Your task to perform on an android device: Open Wikipedia Image 0: 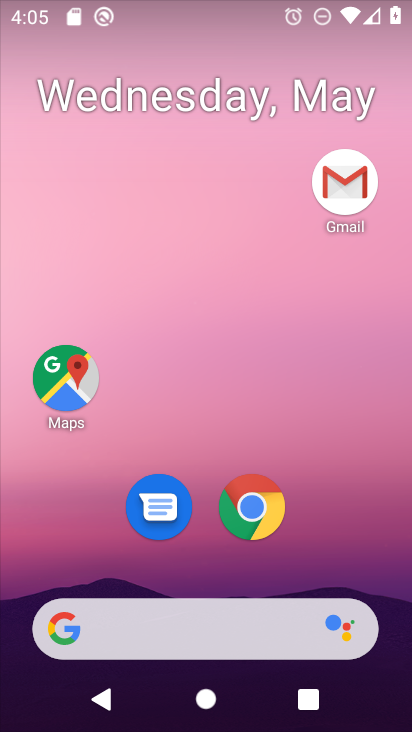
Step 0: drag from (303, 555) to (299, 427)
Your task to perform on an android device: Open Wikipedia Image 1: 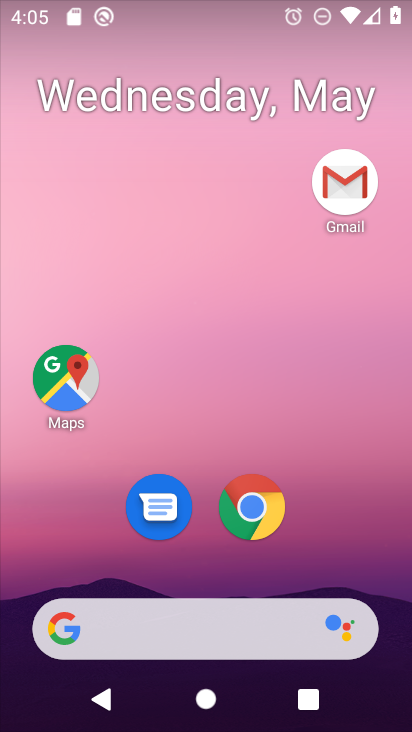
Step 1: drag from (288, 552) to (254, 343)
Your task to perform on an android device: Open Wikipedia Image 2: 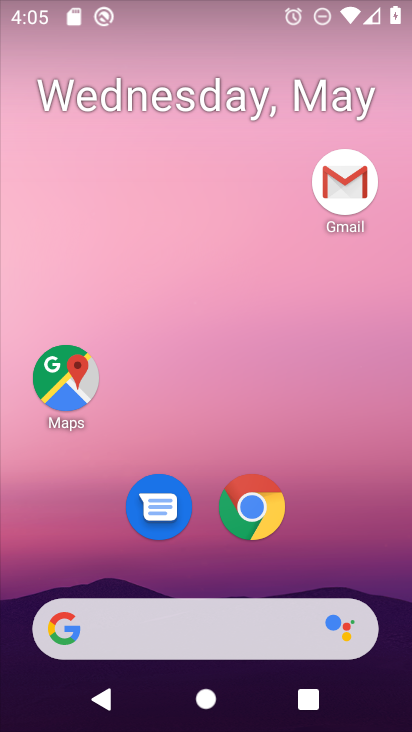
Step 2: drag from (296, 564) to (323, 106)
Your task to perform on an android device: Open Wikipedia Image 3: 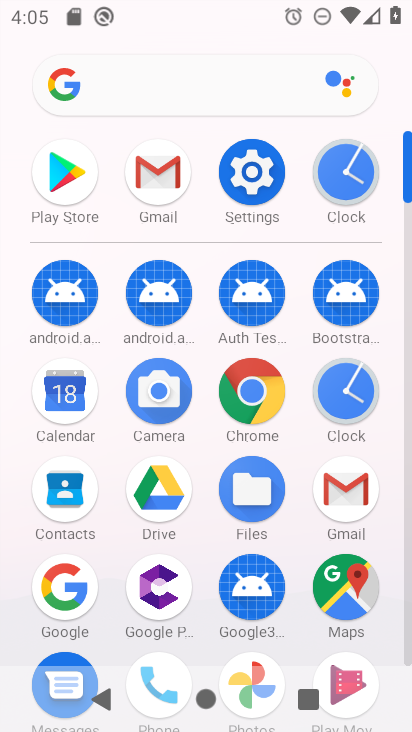
Step 3: click (259, 382)
Your task to perform on an android device: Open Wikipedia Image 4: 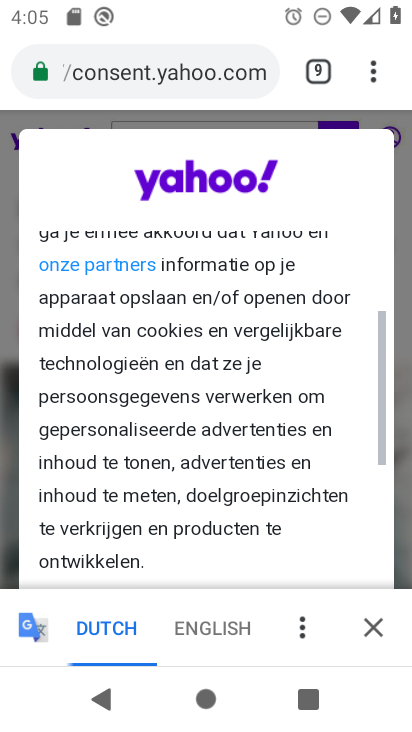
Step 4: click (319, 67)
Your task to perform on an android device: Open Wikipedia Image 5: 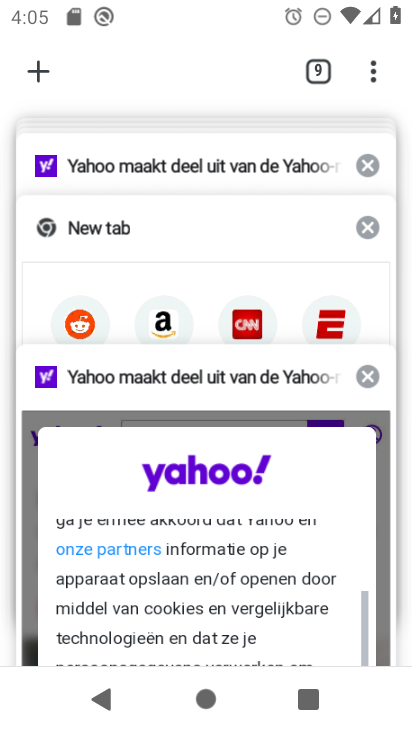
Step 5: drag from (249, 193) to (251, 454)
Your task to perform on an android device: Open Wikipedia Image 6: 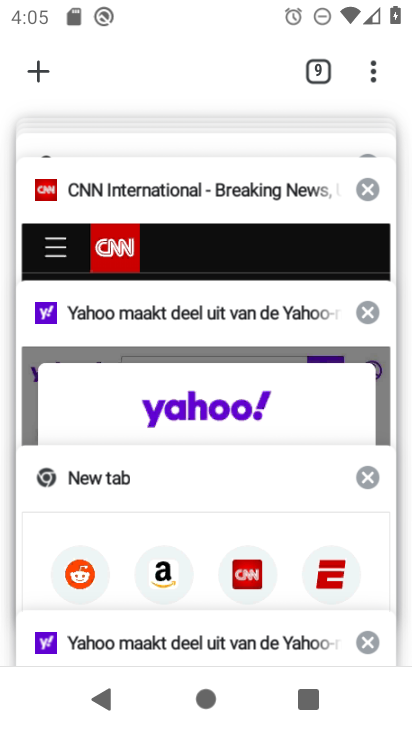
Step 6: drag from (253, 215) to (281, 429)
Your task to perform on an android device: Open Wikipedia Image 7: 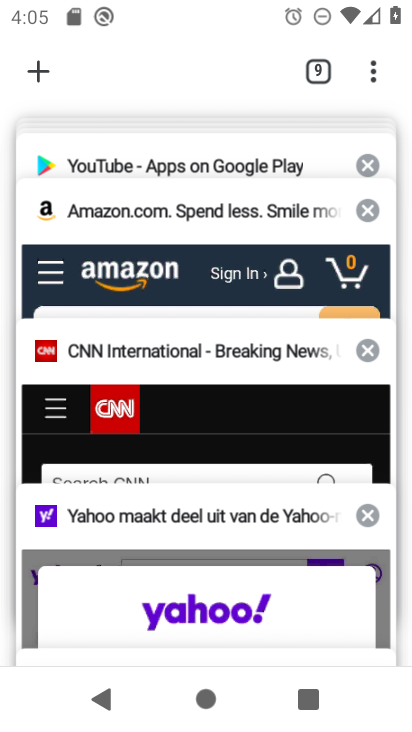
Step 7: drag from (255, 217) to (284, 503)
Your task to perform on an android device: Open Wikipedia Image 8: 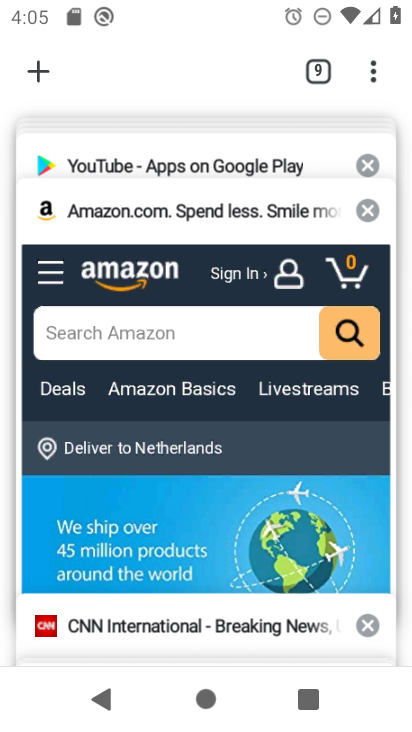
Step 8: drag from (258, 176) to (274, 390)
Your task to perform on an android device: Open Wikipedia Image 9: 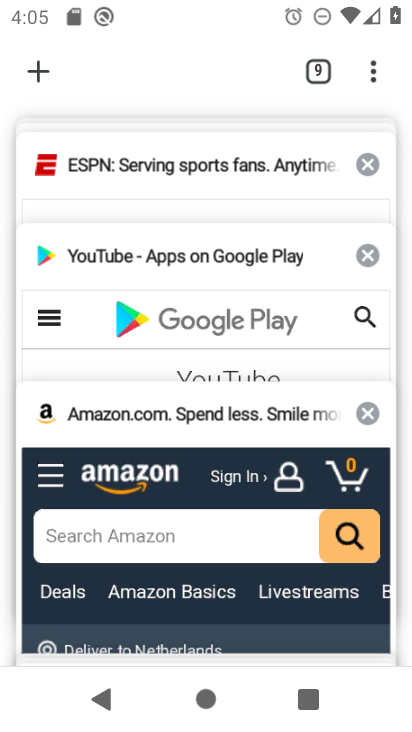
Step 9: drag from (261, 155) to (292, 476)
Your task to perform on an android device: Open Wikipedia Image 10: 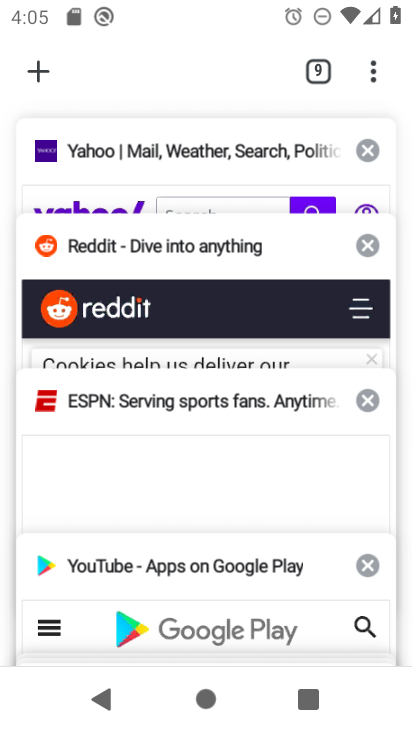
Step 10: drag from (265, 166) to (306, 488)
Your task to perform on an android device: Open Wikipedia Image 11: 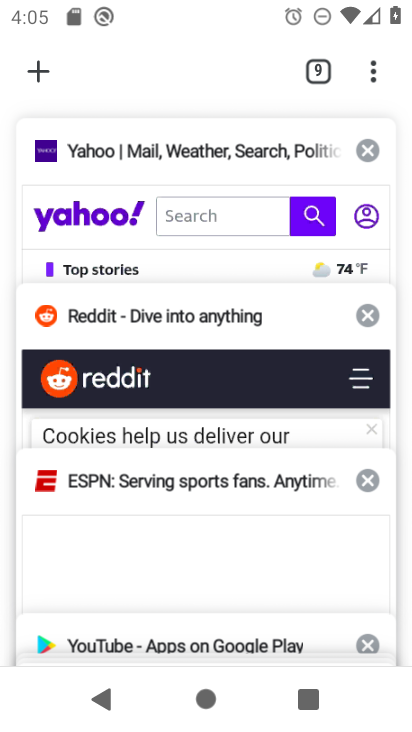
Step 11: click (37, 62)
Your task to perform on an android device: Open Wikipedia Image 12: 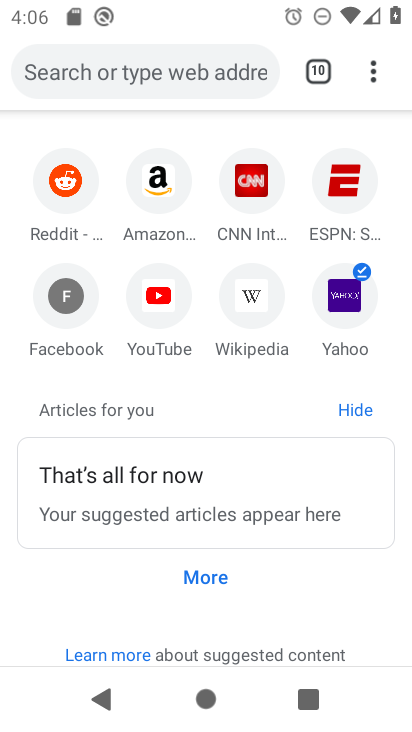
Step 12: click (246, 295)
Your task to perform on an android device: Open Wikipedia Image 13: 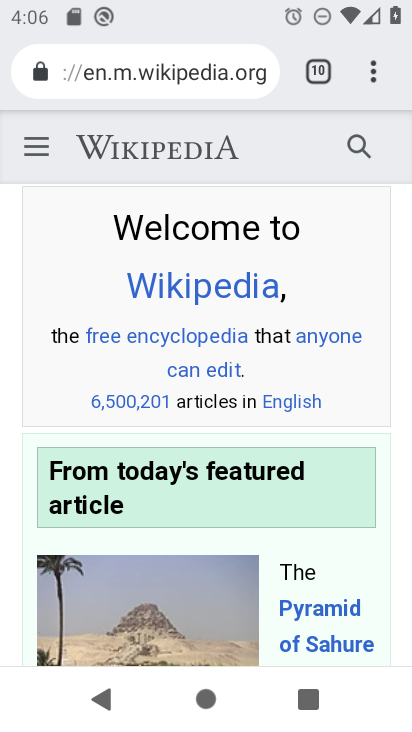
Step 13: task complete